Your task to perform on an android device: uninstall "Etsy: Buy & Sell Unique Items" Image 0: 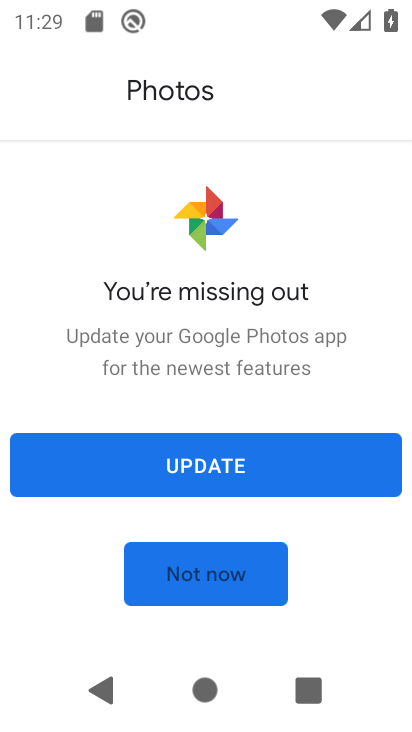
Step 0: press home button
Your task to perform on an android device: uninstall "Etsy: Buy & Sell Unique Items" Image 1: 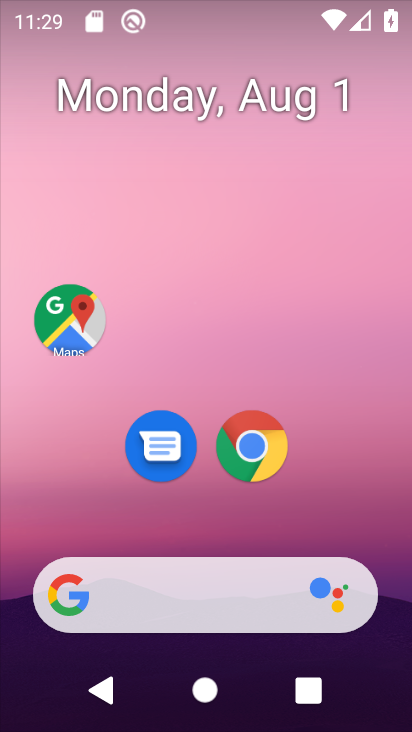
Step 1: drag from (190, 523) to (215, 75)
Your task to perform on an android device: uninstall "Etsy: Buy & Sell Unique Items" Image 2: 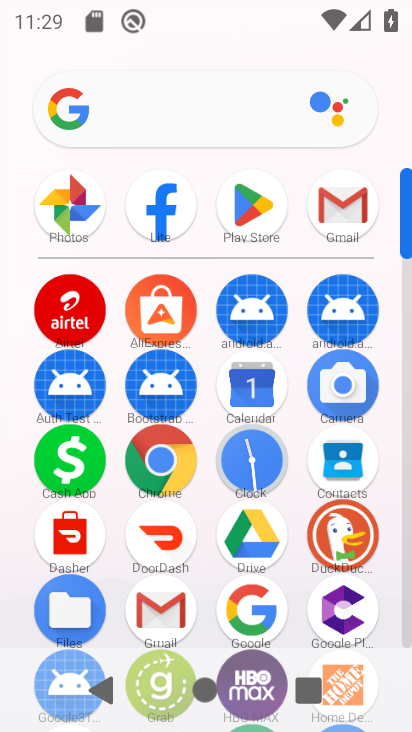
Step 2: click (239, 190)
Your task to perform on an android device: uninstall "Etsy: Buy & Sell Unique Items" Image 3: 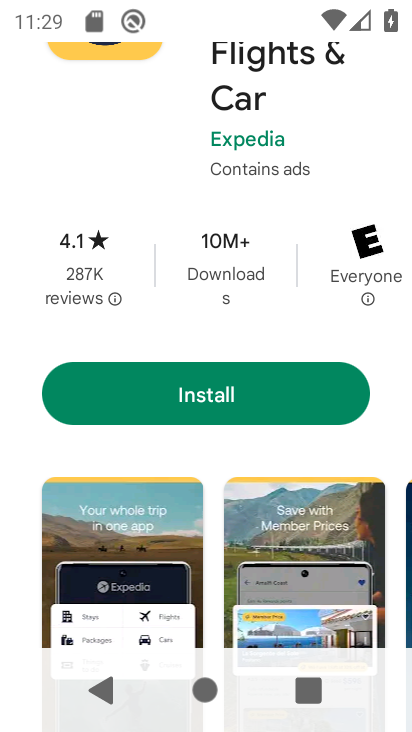
Step 3: drag from (235, 93) to (237, 601)
Your task to perform on an android device: uninstall "Etsy: Buy & Sell Unique Items" Image 4: 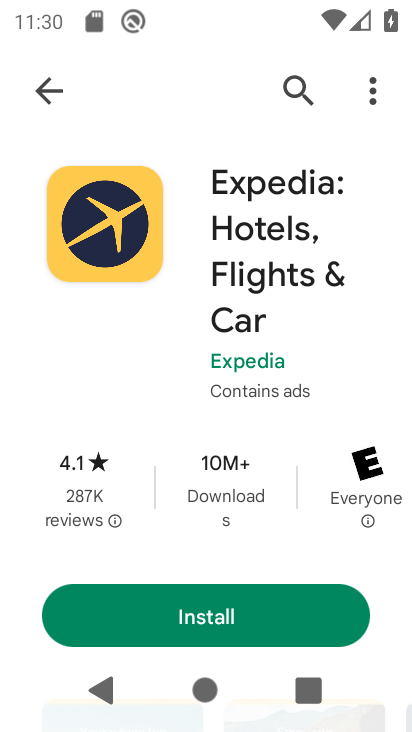
Step 4: click (315, 82)
Your task to perform on an android device: uninstall "Etsy: Buy & Sell Unique Items" Image 5: 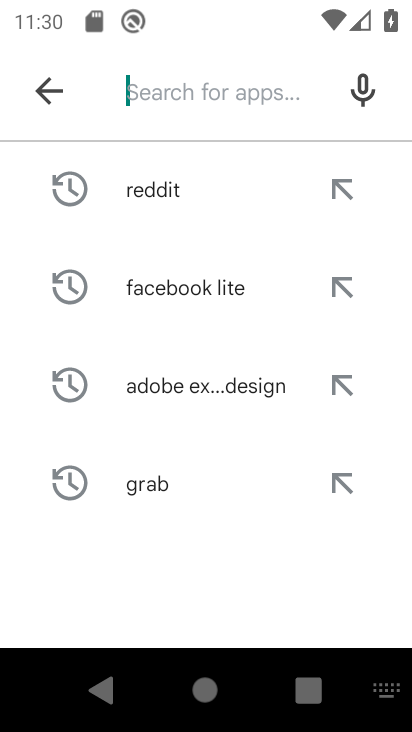
Step 5: type "Etsy: Buy & Sell Unique Items"
Your task to perform on an android device: uninstall "Etsy: Buy & Sell Unique Items" Image 6: 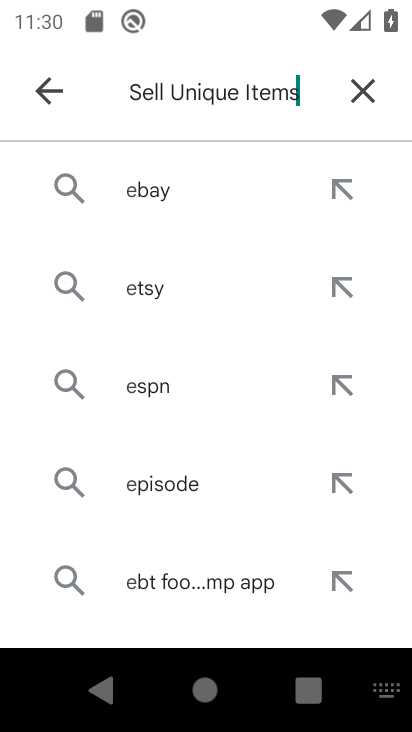
Step 6: type ""
Your task to perform on an android device: uninstall "Etsy: Buy & Sell Unique Items" Image 7: 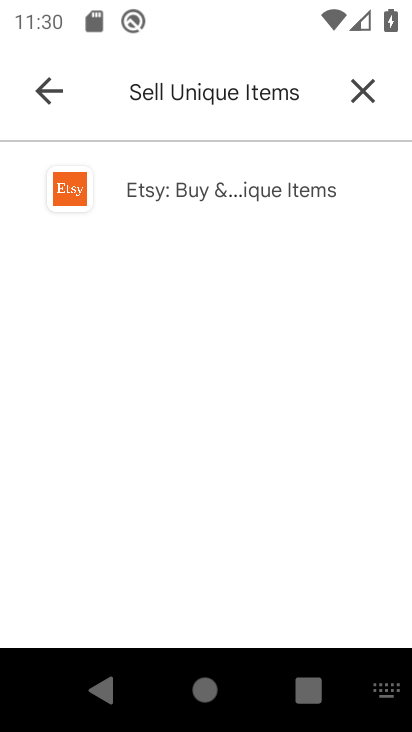
Step 7: click (270, 193)
Your task to perform on an android device: uninstall "Etsy: Buy & Sell Unique Items" Image 8: 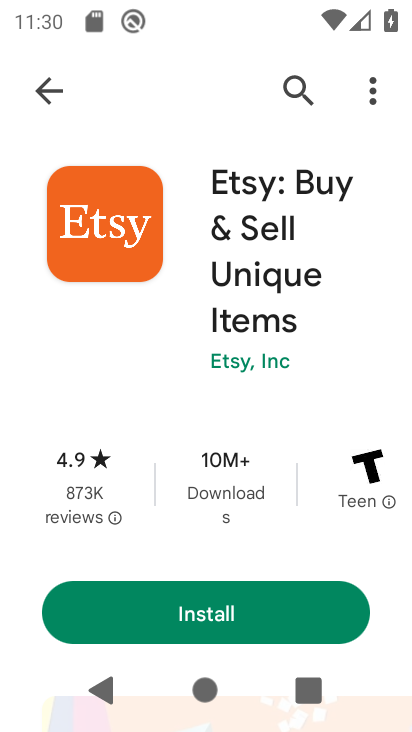
Step 8: task complete